Your task to perform on an android device: empty trash in google photos Image 0: 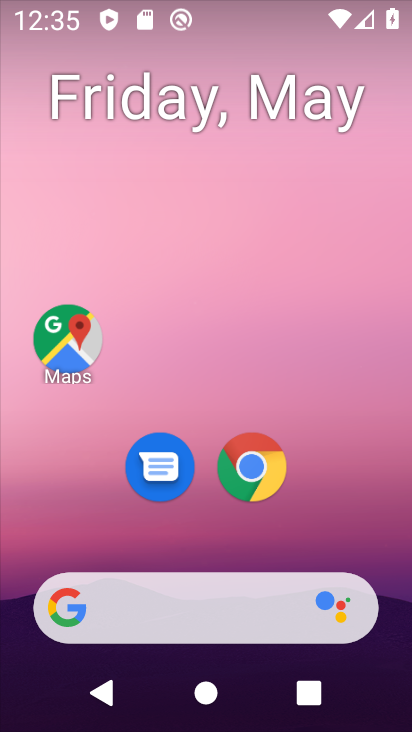
Step 0: drag from (347, 520) to (380, 92)
Your task to perform on an android device: empty trash in google photos Image 1: 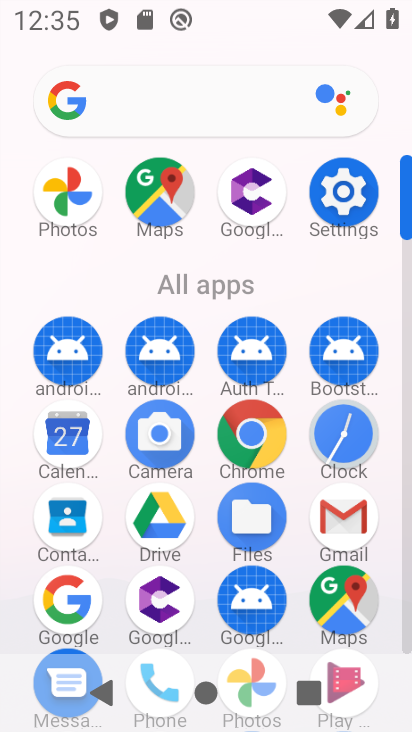
Step 1: click (406, 639)
Your task to perform on an android device: empty trash in google photos Image 2: 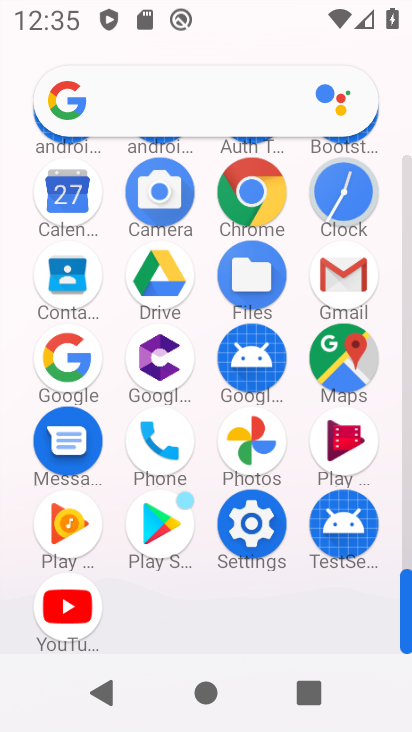
Step 2: click (245, 436)
Your task to perform on an android device: empty trash in google photos Image 3: 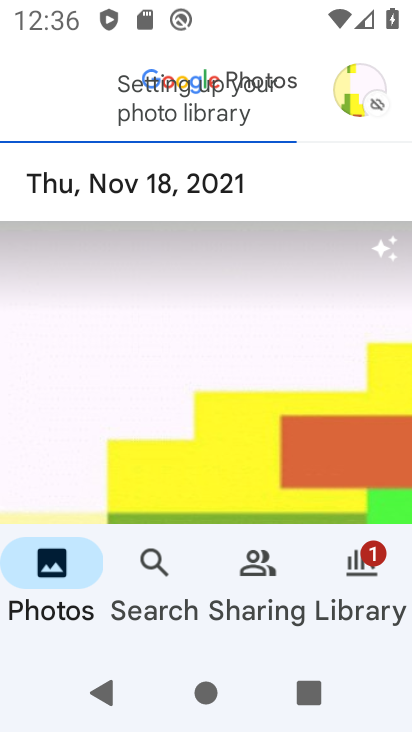
Step 3: click (378, 596)
Your task to perform on an android device: empty trash in google photos Image 4: 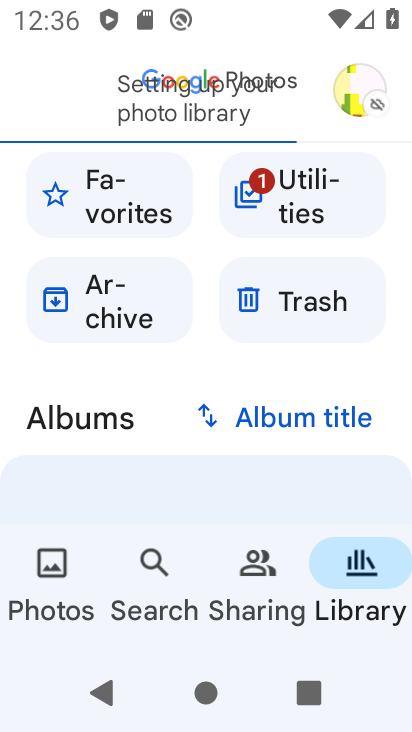
Step 4: click (270, 322)
Your task to perform on an android device: empty trash in google photos Image 5: 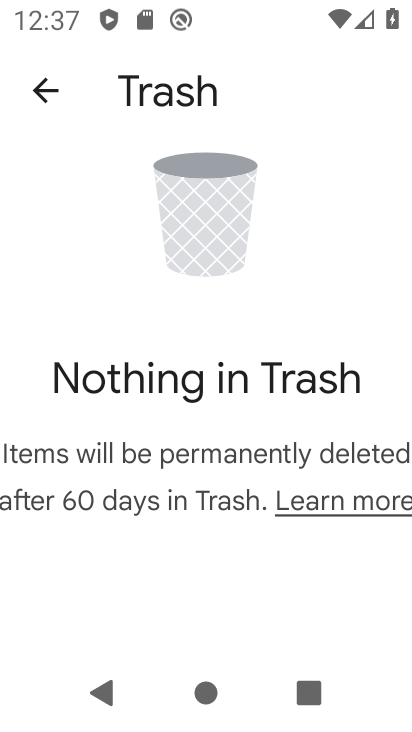
Step 5: task complete